Your task to perform on an android device: Open Youtube and go to the subscriptions tab Image 0: 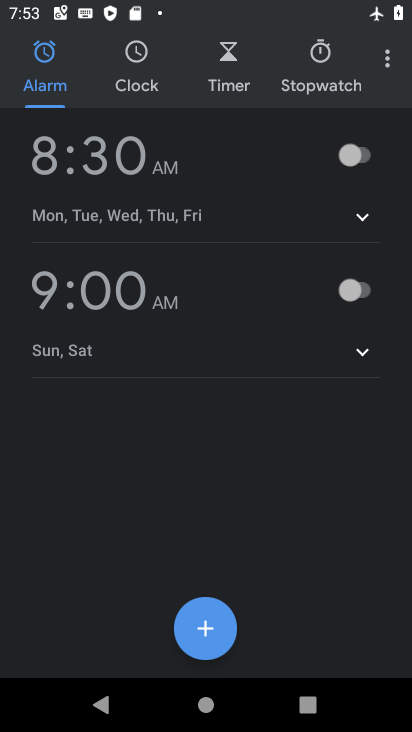
Step 0: press home button
Your task to perform on an android device: Open Youtube and go to the subscriptions tab Image 1: 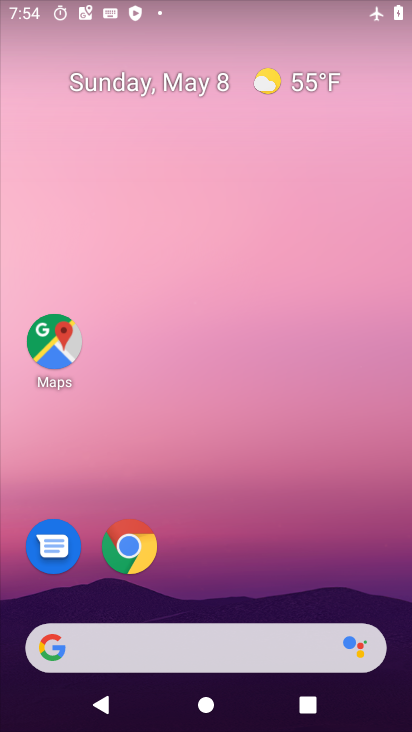
Step 1: drag from (241, 596) to (284, 36)
Your task to perform on an android device: Open Youtube and go to the subscriptions tab Image 2: 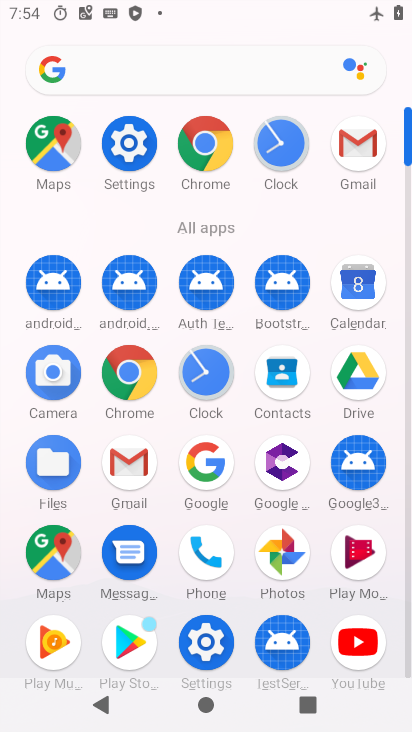
Step 2: click (360, 642)
Your task to perform on an android device: Open Youtube and go to the subscriptions tab Image 3: 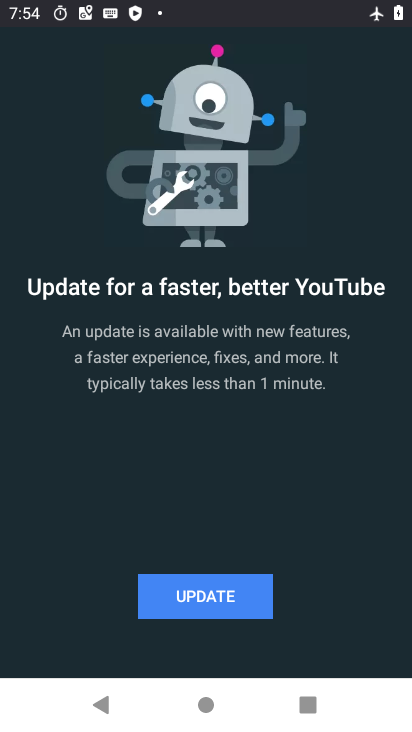
Step 3: click (258, 590)
Your task to perform on an android device: Open Youtube and go to the subscriptions tab Image 4: 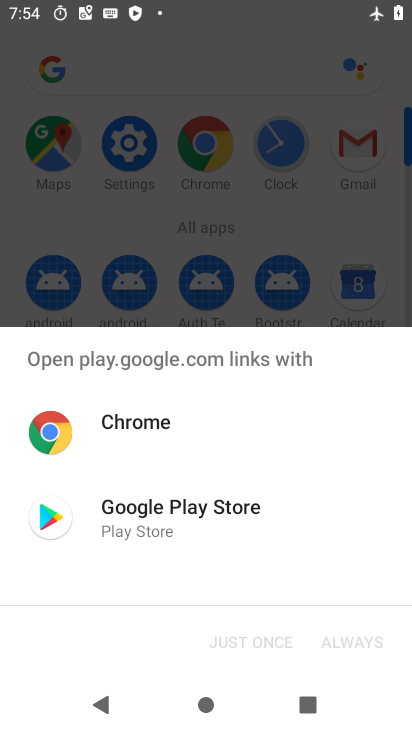
Step 4: click (189, 496)
Your task to perform on an android device: Open Youtube and go to the subscriptions tab Image 5: 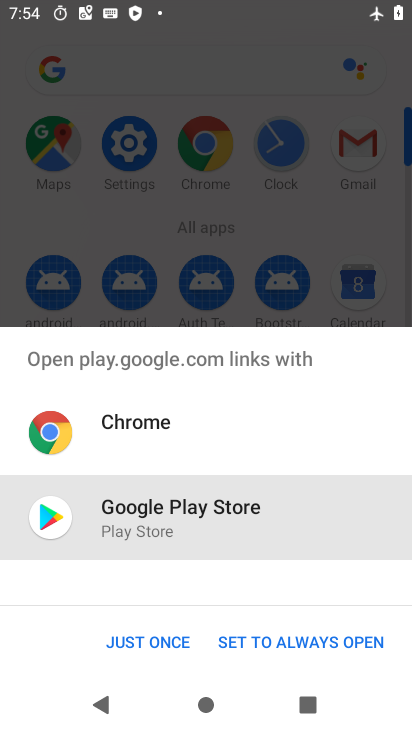
Step 5: click (164, 638)
Your task to perform on an android device: Open Youtube and go to the subscriptions tab Image 6: 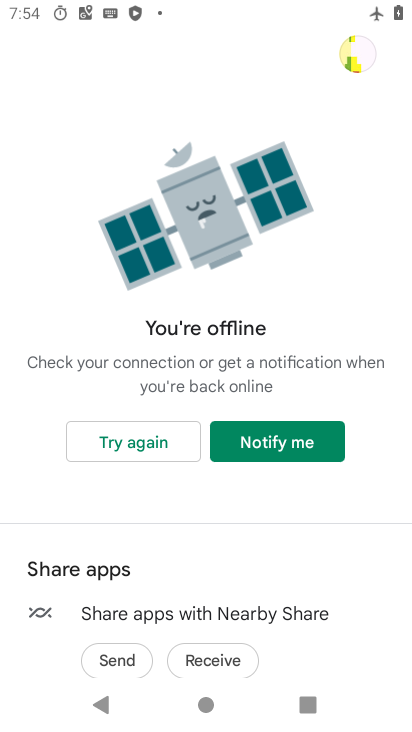
Step 6: task complete